Your task to perform on an android device: Go to settings Image 0: 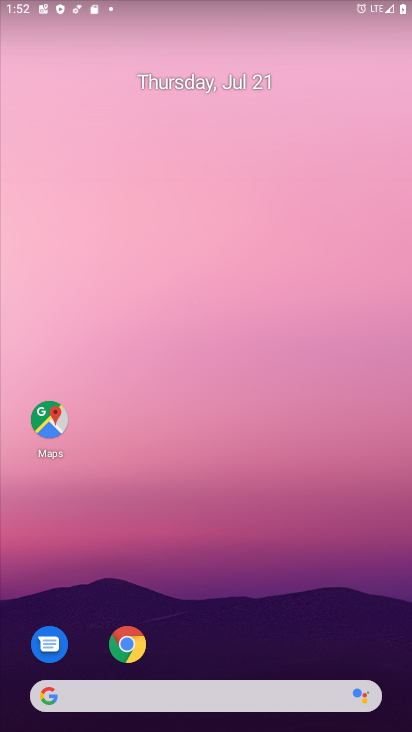
Step 0: drag from (246, 690) to (263, 255)
Your task to perform on an android device: Go to settings Image 1: 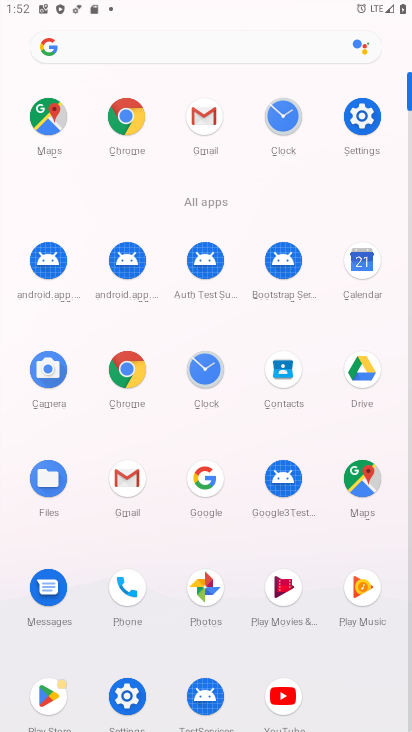
Step 1: click (366, 120)
Your task to perform on an android device: Go to settings Image 2: 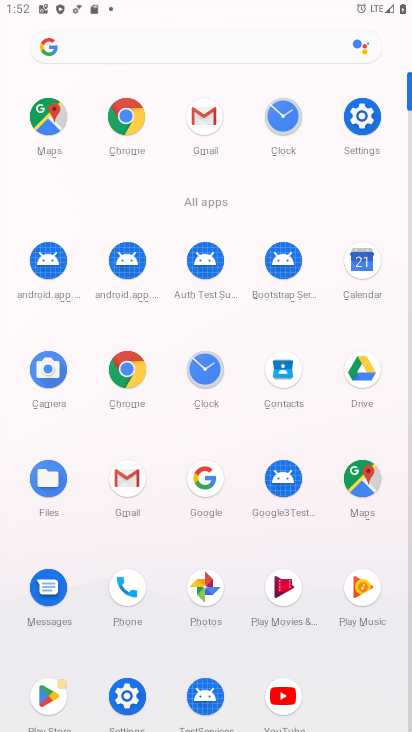
Step 2: click (362, 122)
Your task to perform on an android device: Go to settings Image 3: 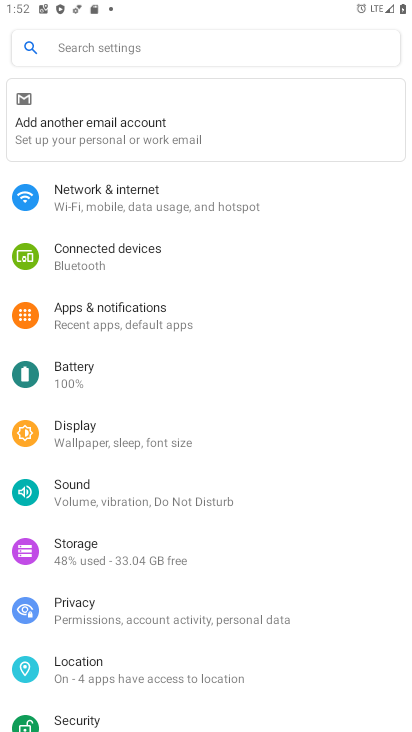
Step 3: task complete